Your task to perform on an android device: find snoozed emails in the gmail app Image 0: 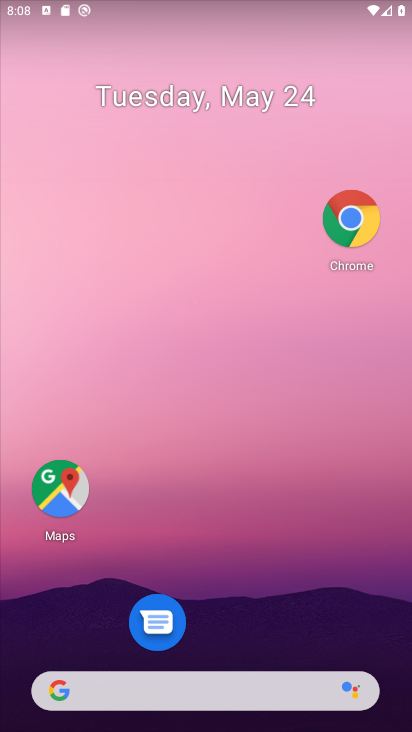
Step 0: drag from (303, 695) to (287, 317)
Your task to perform on an android device: find snoozed emails in the gmail app Image 1: 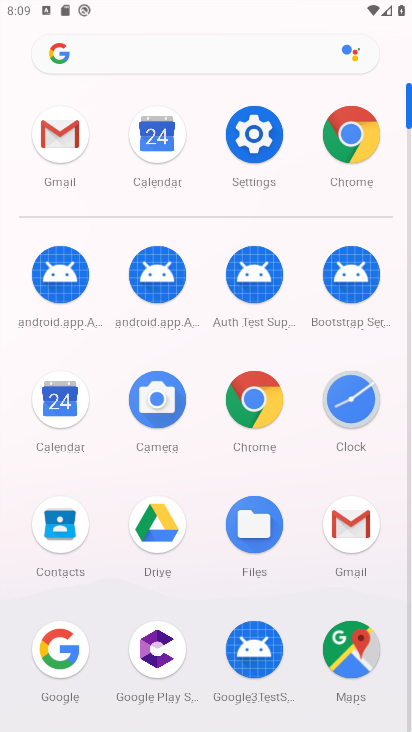
Step 1: click (86, 137)
Your task to perform on an android device: find snoozed emails in the gmail app Image 2: 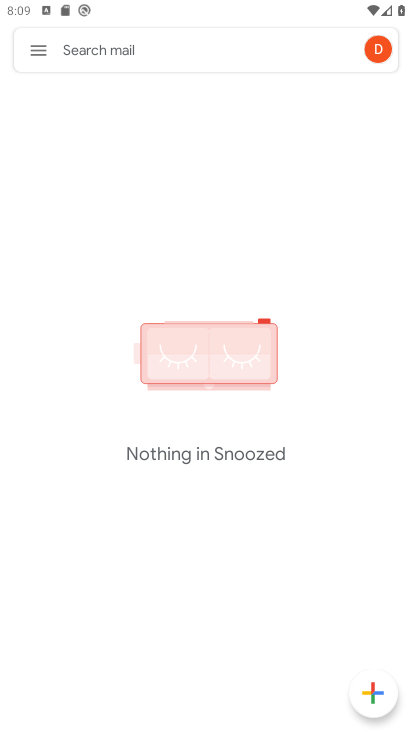
Step 2: click (56, 54)
Your task to perform on an android device: find snoozed emails in the gmail app Image 3: 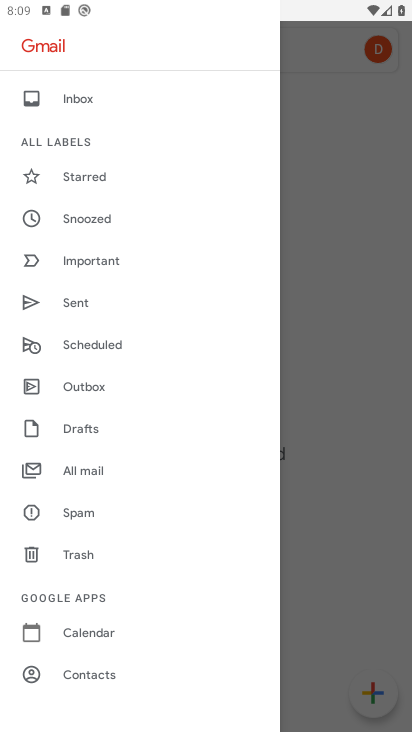
Step 3: click (83, 221)
Your task to perform on an android device: find snoozed emails in the gmail app Image 4: 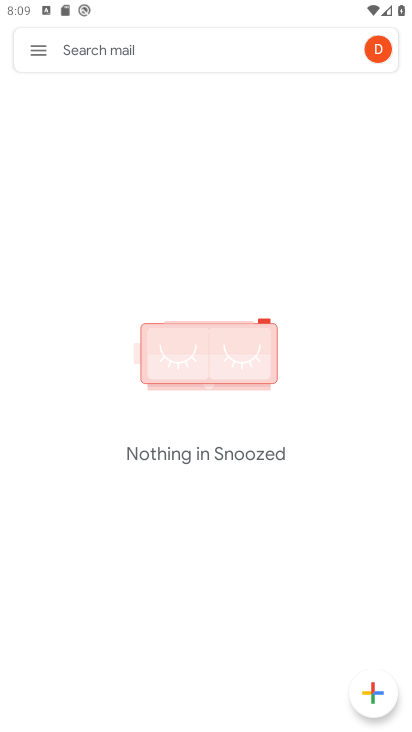
Step 4: task complete